Your task to perform on an android device: Search for sushi restaurants on Maps Image 0: 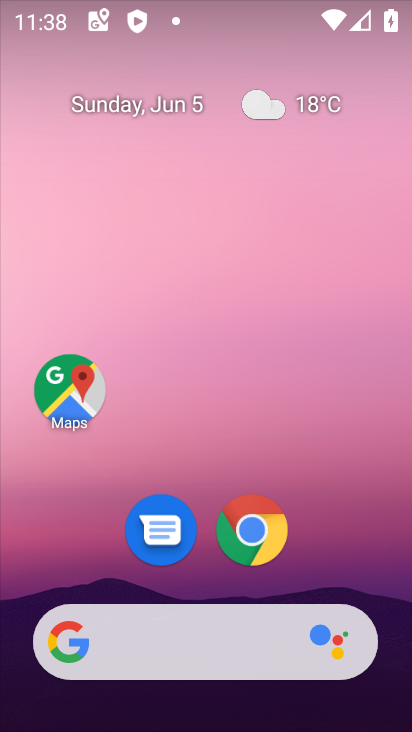
Step 0: drag from (368, 576) to (399, 81)
Your task to perform on an android device: Search for sushi restaurants on Maps Image 1: 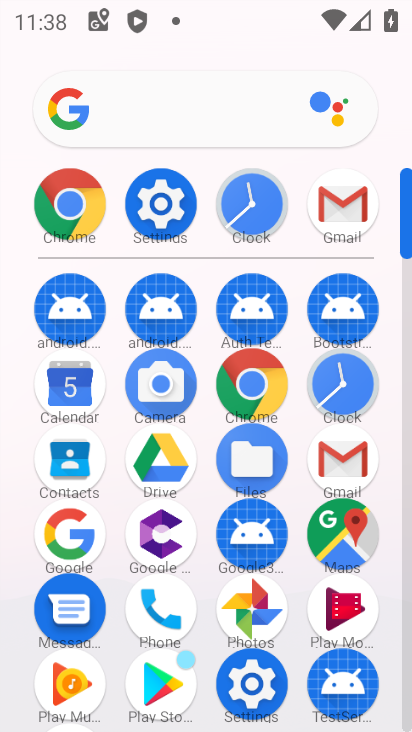
Step 1: click (345, 522)
Your task to perform on an android device: Search for sushi restaurants on Maps Image 2: 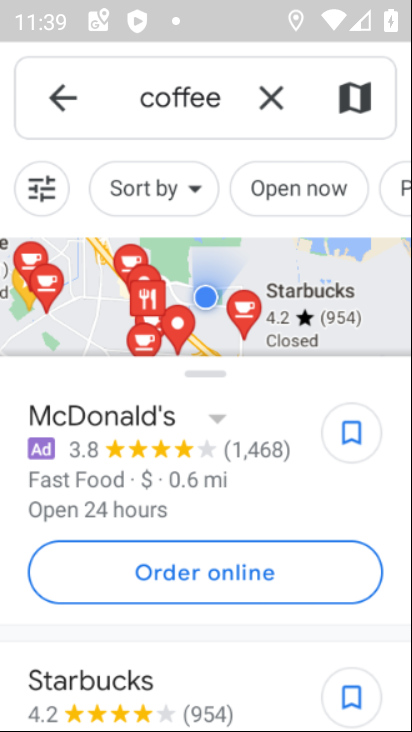
Step 2: click (264, 95)
Your task to perform on an android device: Search for sushi restaurants on Maps Image 3: 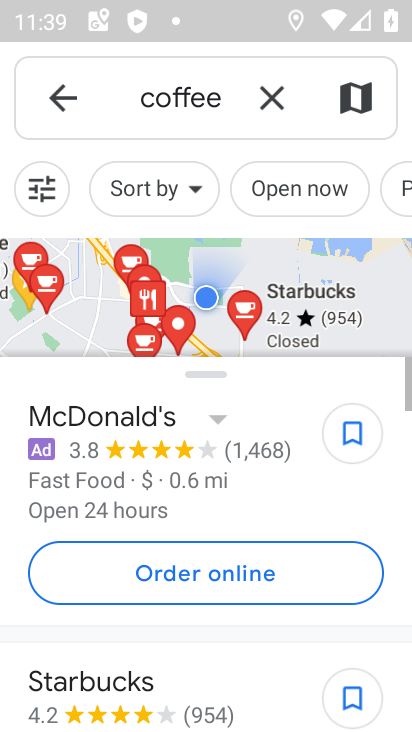
Step 3: click (264, 95)
Your task to perform on an android device: Search for sushi restaurants on Maps Image 4: 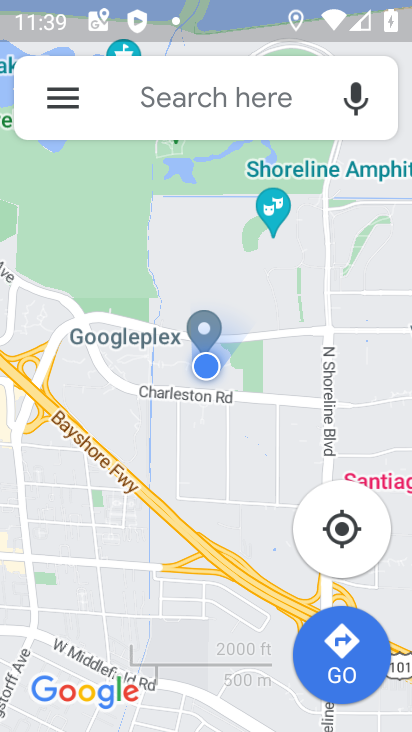
Step 4: click (194, 110)
Your task to perform on an android device: Search for sushi restaurants on Maps Image 5: 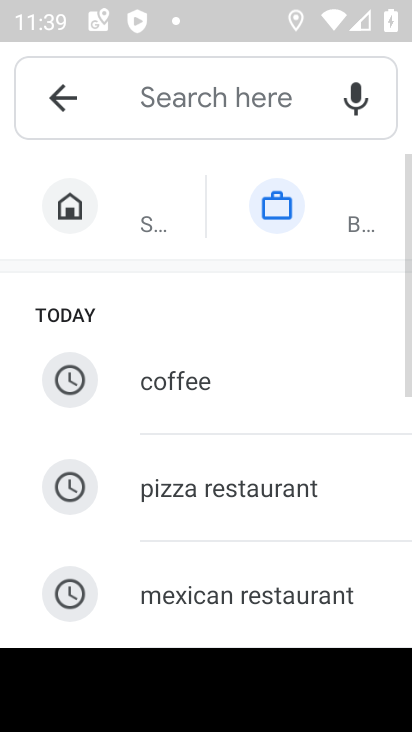
Step 5: drag from (331, 484) to (370, 96)
Your task to perform on an android device: Search for sushi restaurants on Maps Image 6: 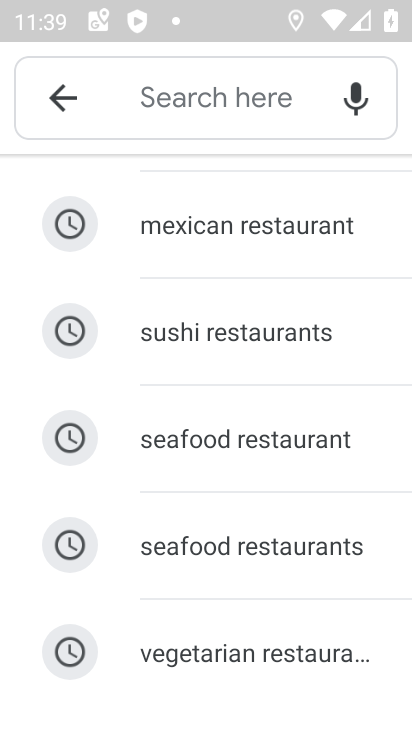
Step 6: drag from (280, 486) to (318, 41)
Your task to perform on an android device: Search for sushi restaurants on Maps Image 7: 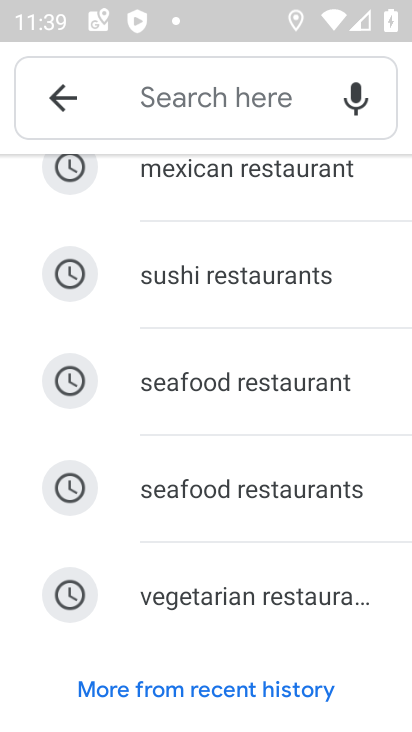
Step 7: drag from (222, 644) to (293, 181)
Your task to perform on an android device: Search for sushi restaurants on Maps Image 8: 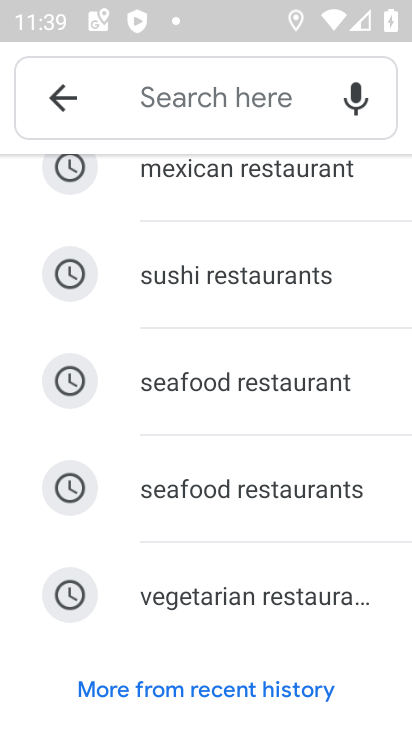
Step 8: click (189, 698)
Your task to perform on an android device: Search for sushi restaurants on Maps Image 9: 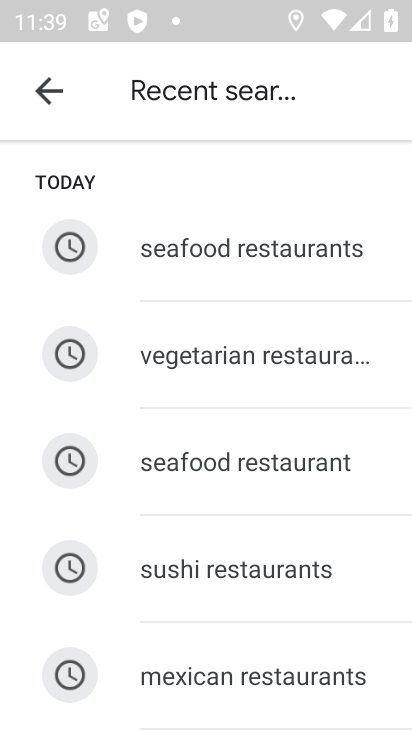
Step 9: drag from (204, 659) to (210, 431)
Your task to perform on an android device: Search for sushi restaurants on Maps Image 10: 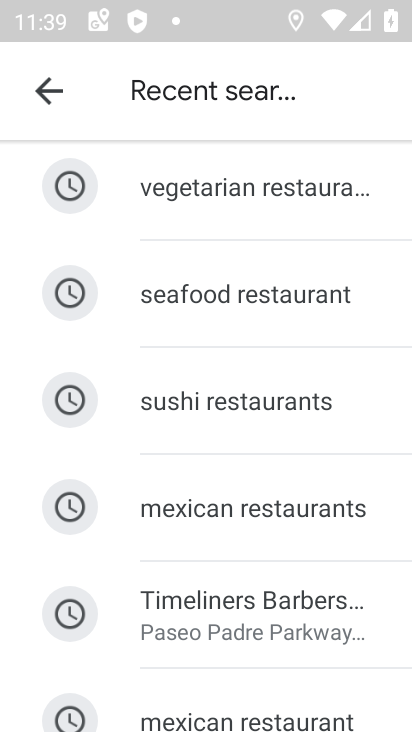
Step 10: click (204, 415)
Your task to perform on an android device: Search for sushi restaurants on Maps Image 11: 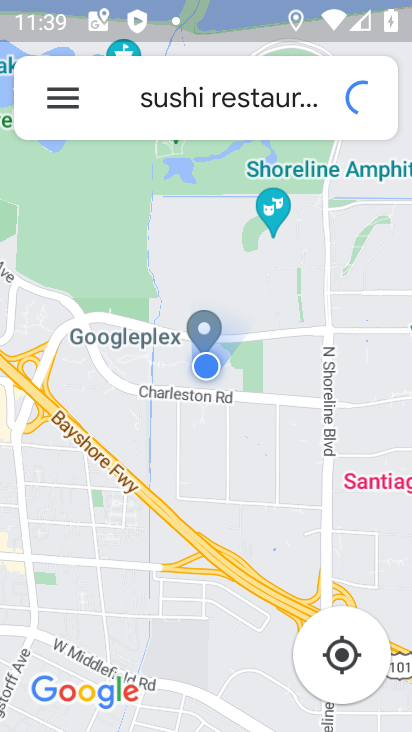
Step 11: task complete